Your task to perform on an android device: Open Google Chrome Image 0: 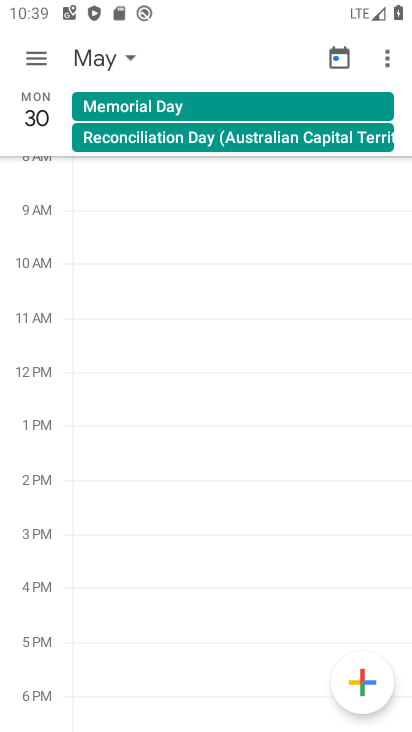
Step 0: press home button
Your task to perform on an android device: Open Google Chrome Image 1: 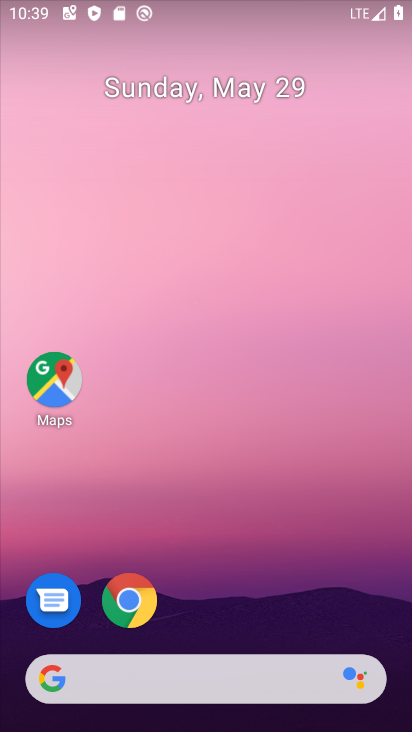
Step 1: click (140, 618)
Your task to perform on an android device: Open Google Chrome Image 2: 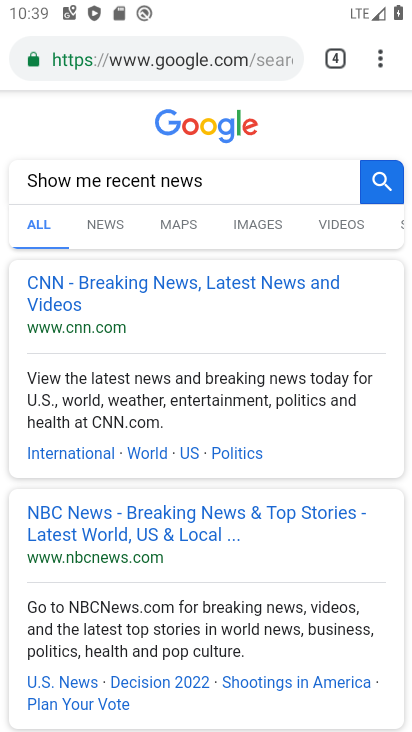
Step 2: task complete